Your task to perform on an android device: Open sound settings Image 0: 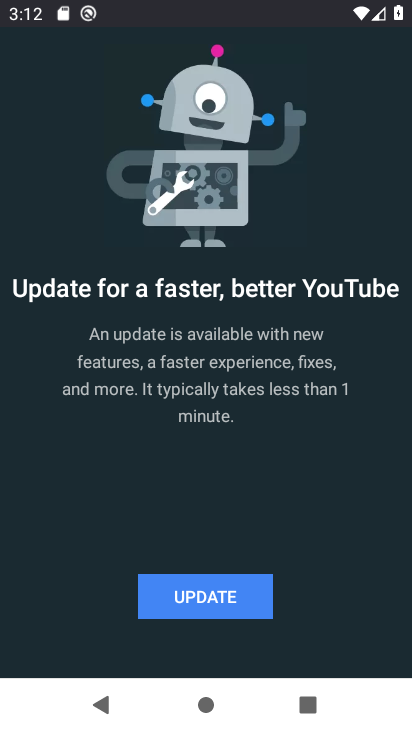
Step 0: press back button
Your task to perform on an android device: Open sound settings Image 1: 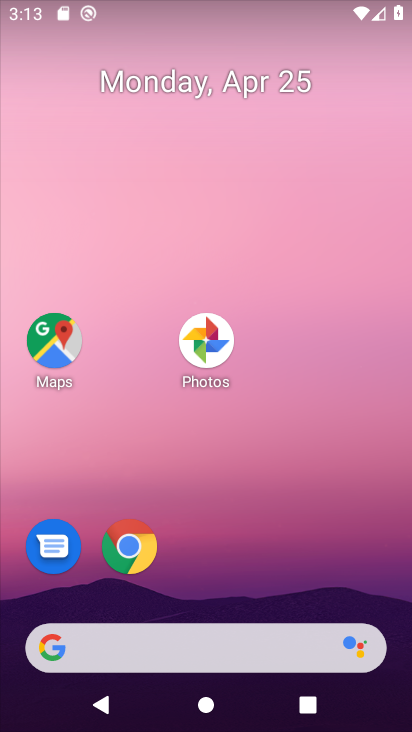
Step 1: drag from (311, 545) to (310, 245)
Your task to perform on an android device: Open sound settings Image 2: 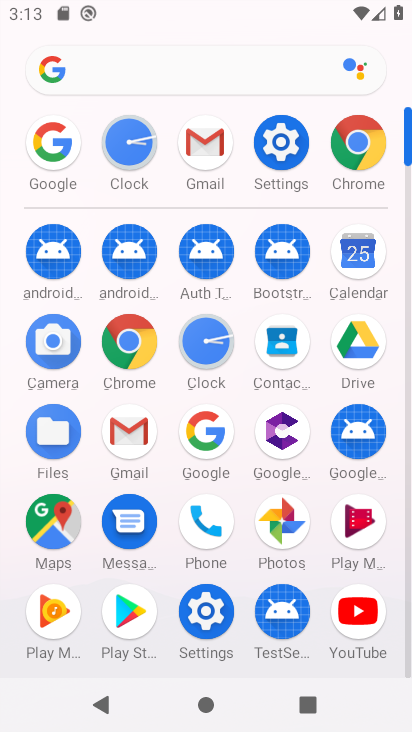
Step 2: click (280, 133)
Your task to perform on an android device: Open sound settings Image 3: 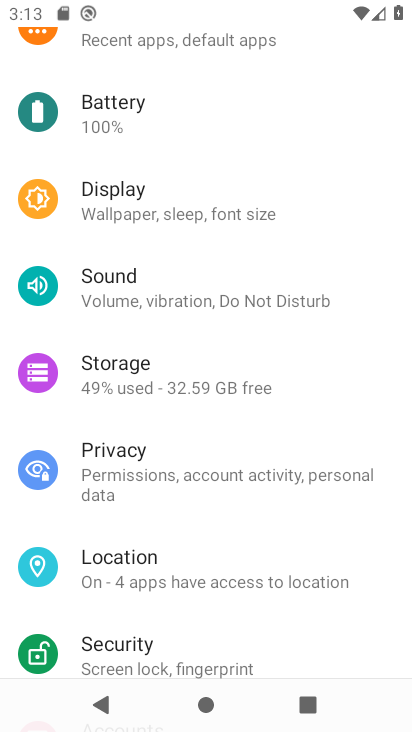
Step 3: click (156, 293)
Your task to perform on an android device: Open sound settings Image 4: 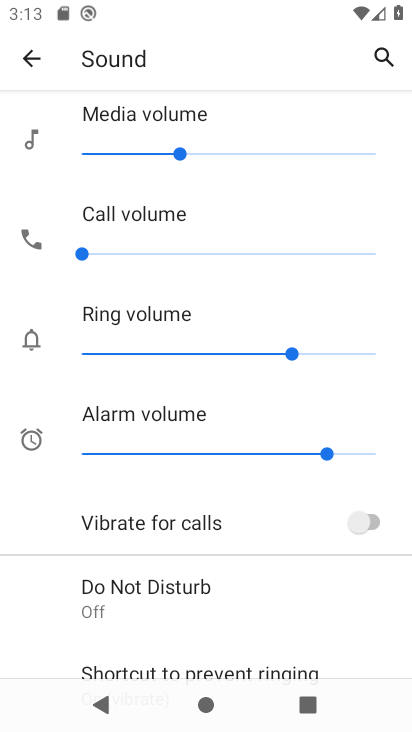
Step 4: task complete